Your task to perform on an android device: turn on showing notifications on the lock screen Image 0: 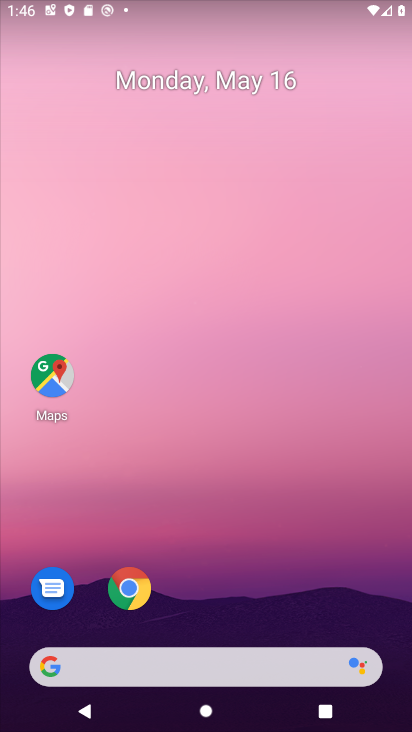
Step 0: drag from (244, 569) to (179, 81)
Your task to perform on an android device: turn on showing notifications on the lock screen Image 1: 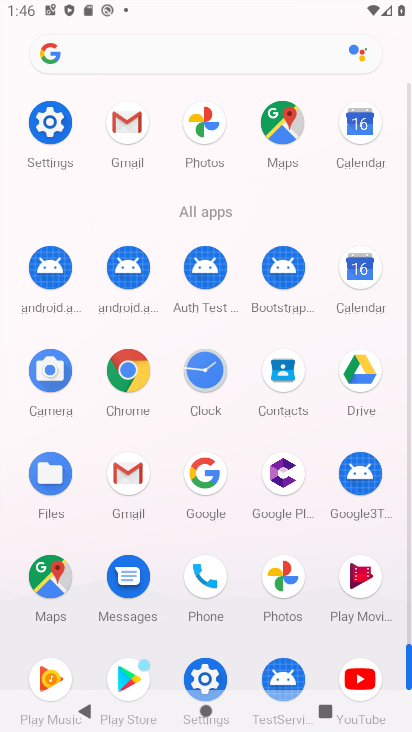
Step 1: drag from (224, 635) to (232, 502)
Your task to perform on an android device: turn on showing notifications on the lock screen Image 2: 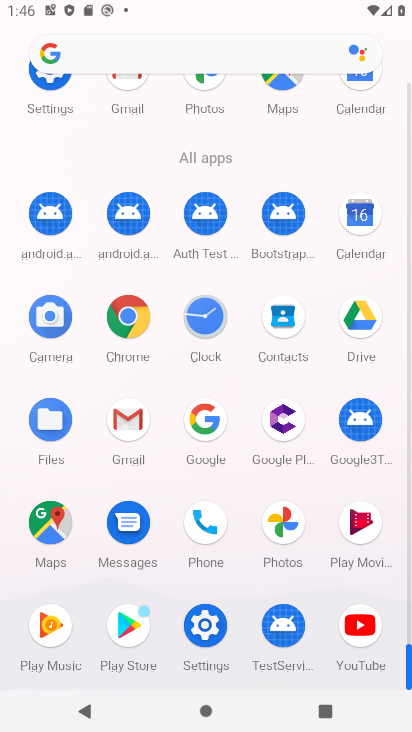
Step 2: click (204, 625)
Your task to perform on an android device: turn on showing notifications on the lock screen Image 3: 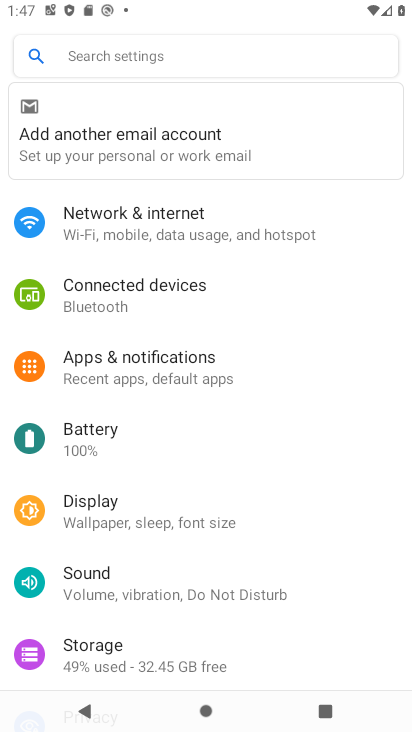
Step 3: click (149, 361)
Your task to perform on an android device: turn on showing notifications on the lock screen Image 4: 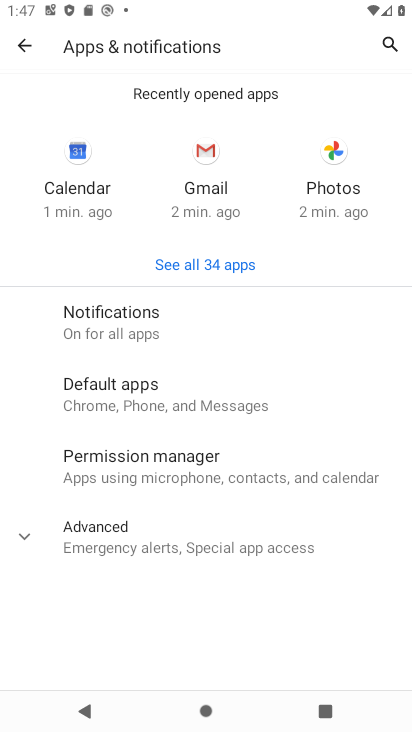
Step 4: click (117, 314)
Your task to perform on an android device: turn on showing notifications on the lock screen Image 5: 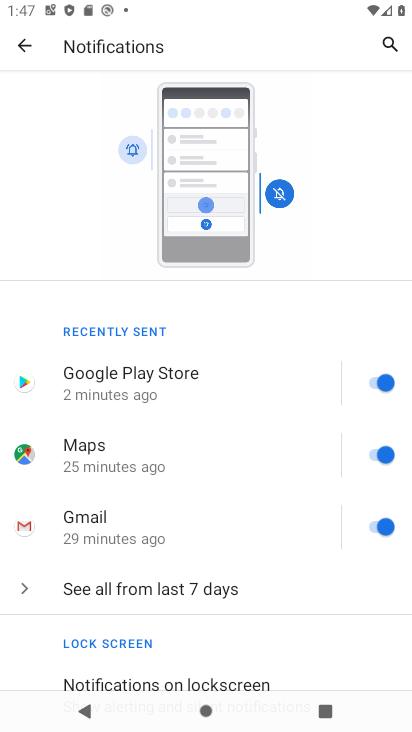
Step 5: drag from (162, 632) to (225, 504)
Your task to perform on an android device: turn on showing notifications on the lock screen Image 6: 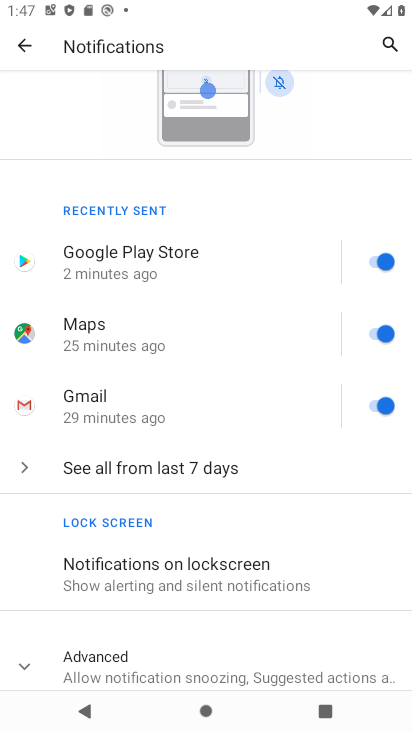
Step 6: click (206, 576)
Your task to perform on an android device: turn on showing notifications on the lock screen Image 7: 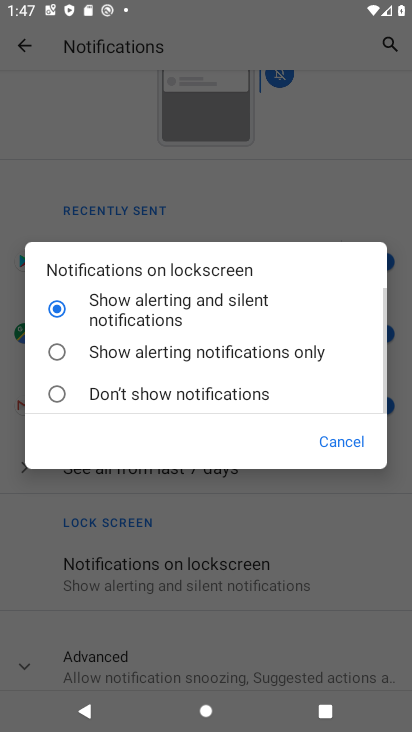
Step 7: click (61, 307)
Your task to perform on an android device: turn on showing notifications on the lock screen Image 8: 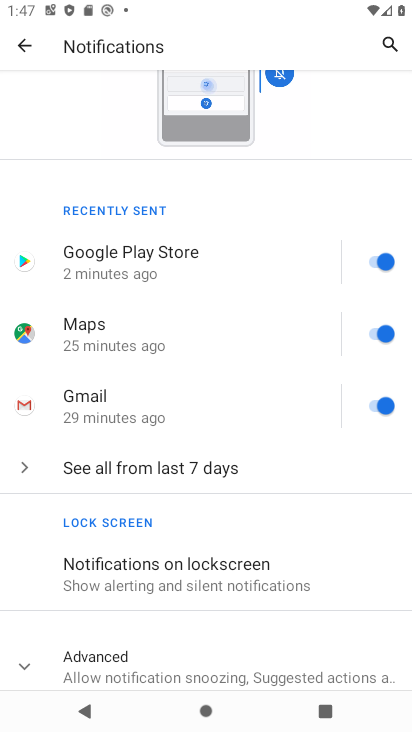
Step 8: task complete